Your task to perform on an android device: allow cookies in the chrome app Image 0: 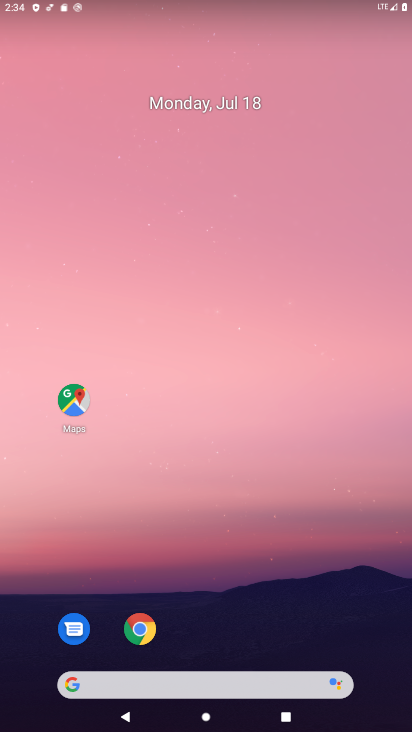
Step 0: click (155, 632)
Your task to perform on an android device: allow cookies in the chrome app Image 1: 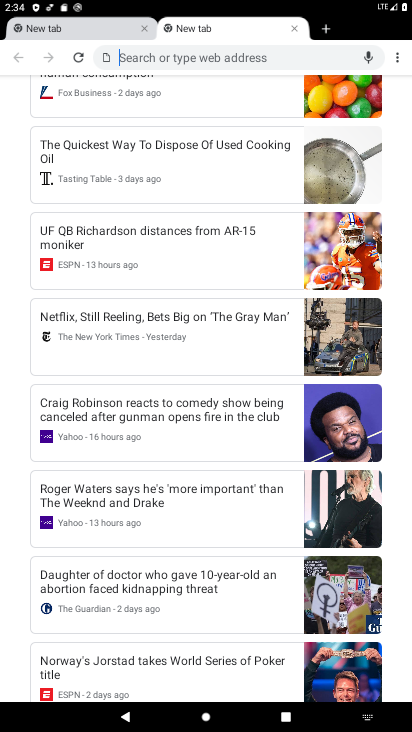
Step 1: click (397, 55)
Your task to perform on an android device: allow cookies in the chrome app Image 2: 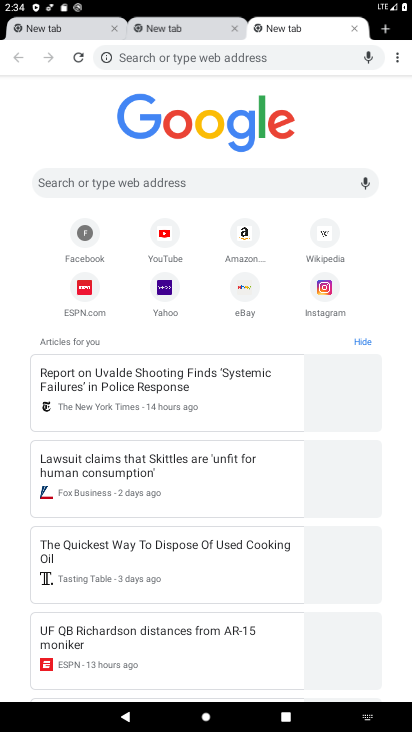
Step 2: click (398, 56)
Your task to perform on an android device: allow cookies in the chrome app Image 3: 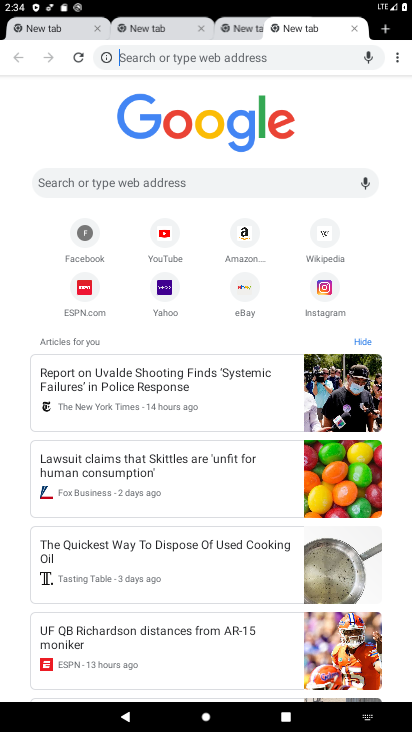
Step 3: click (395, 58)
Your task to perform on an android device: allow cookies in the chrome app Image 4: 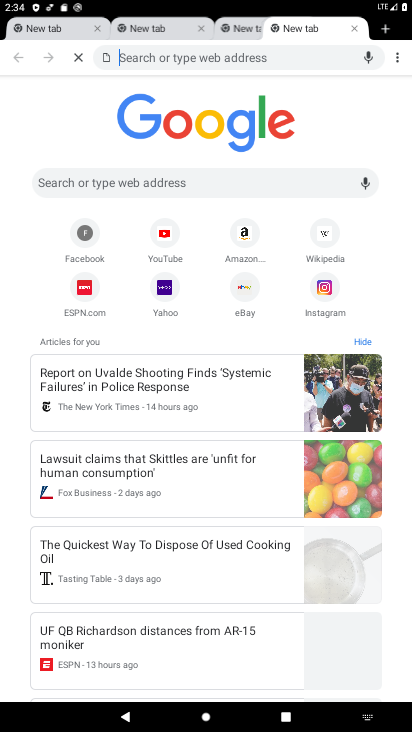
Step 4: click (395, 58)
Your task to perform on an android device: allow cookies in the chrome app Image 5: 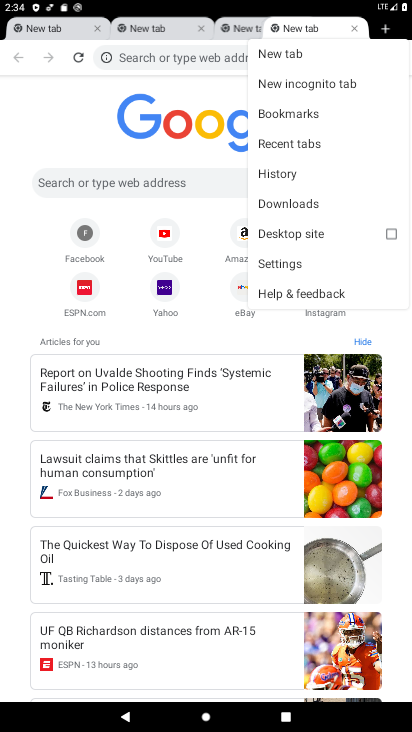
Step 5: click (261, 262)
Your task to perform on an android device: allow cookies in the chrome app Image 6: 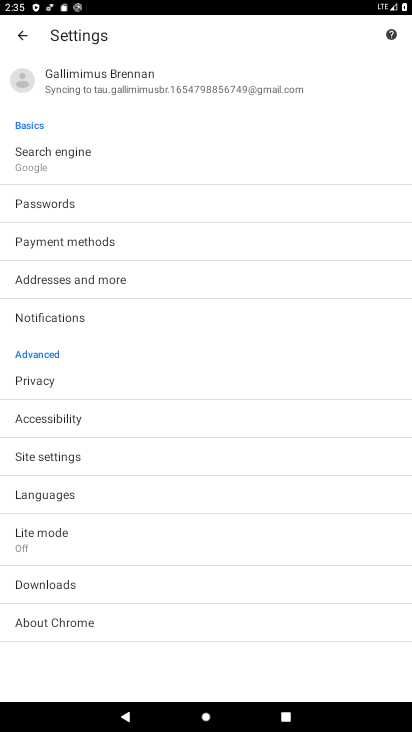
Step 6: click (31, 455)
Your task to perform on an android device: allow cookies in the chrome app Image 7: 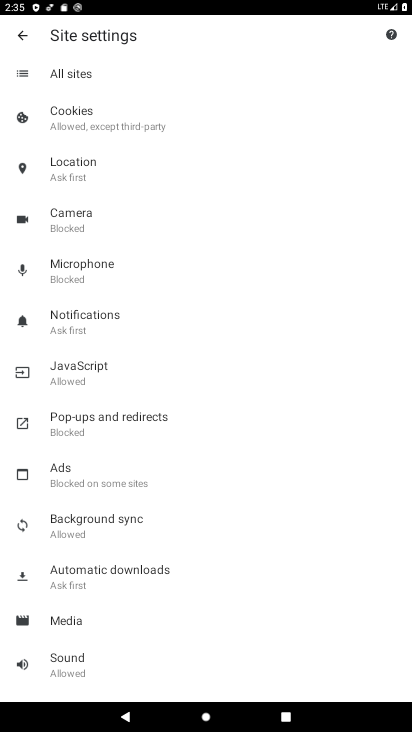
Step 7: click (116, 118)
Your task to perform on an android device: allow cookies in the chrome app Image 8: 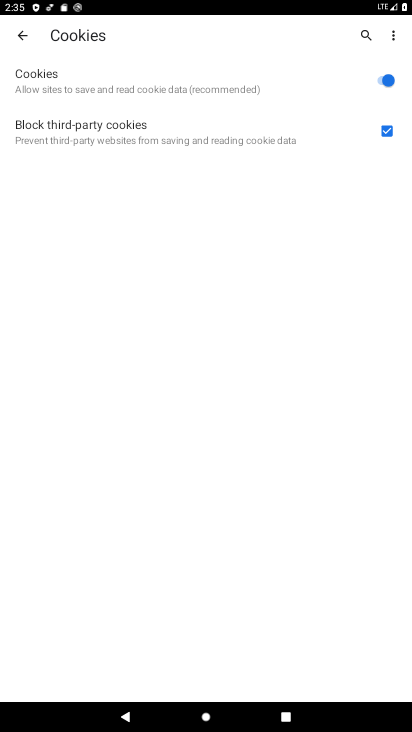
Step 8: task complete